Your task to perform on an android device: turn on javascript in the chrome app Image 0: 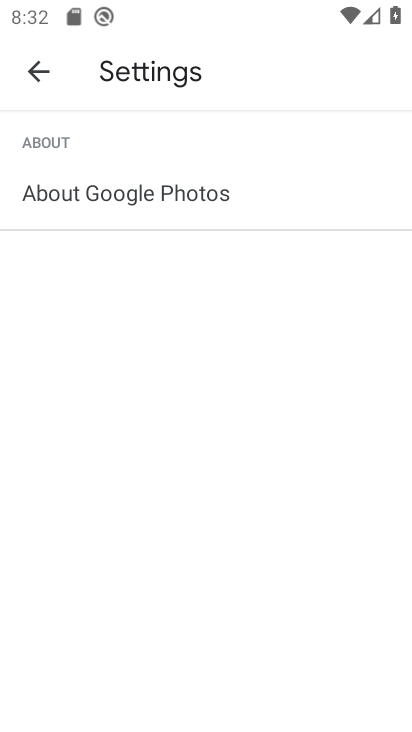
Step 0: press home button
Your task to perform on an android device: turn on javascript in the chrome app Image 1: 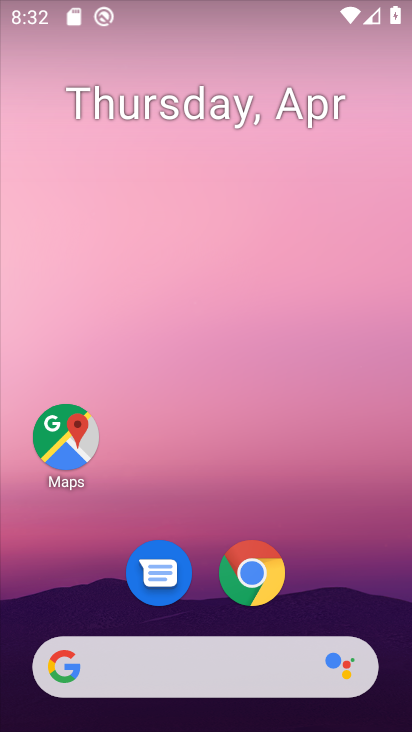
Step 1: click (251, 572)
Your task to perform on an android device: turn on javascript in the chrome app Image 2: 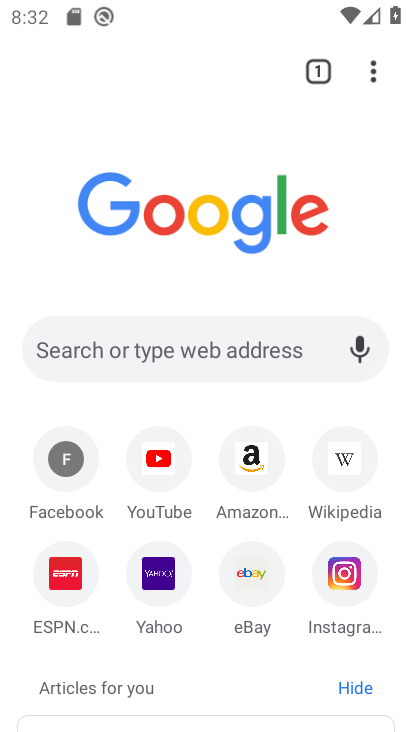
Step 2: click (375, 68)
Your task to perform on an android device: turn on javascript in the chrome app Image 3: 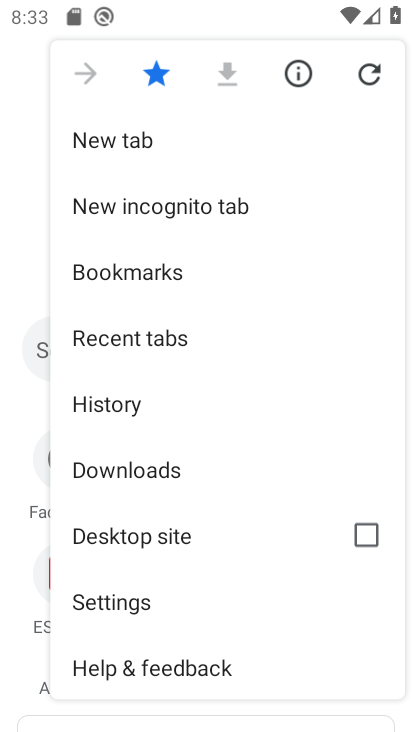
Step 3: click (113, 601)
Your task to perform on an android device: turn on javascript in the chrome app Image 4: 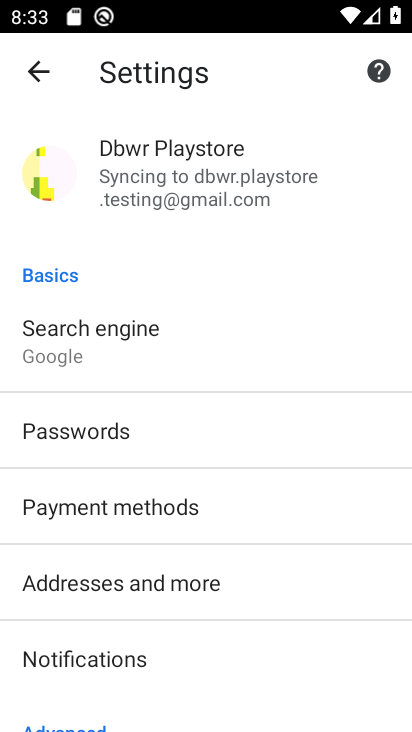
Step 4: drag from (205, 641) to (308, 460)
Your task to perform on an android device: turn on javascript in the chrome app Image 5: 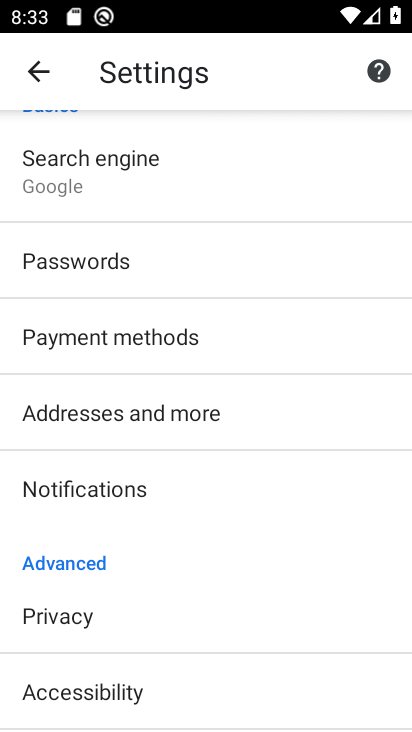
Step 5: drag from (187, 578) to (280, 459)
Your task to perform on an android device: turn on javascript in the chrome app Image 6: 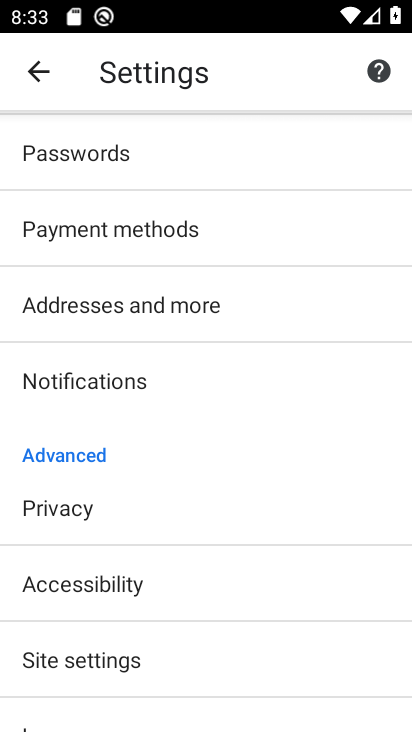
Step 6: drag from (191, 592) to (264, 501)
Your task to perform on an android device: turn on javascript in the chrome app Image 7: 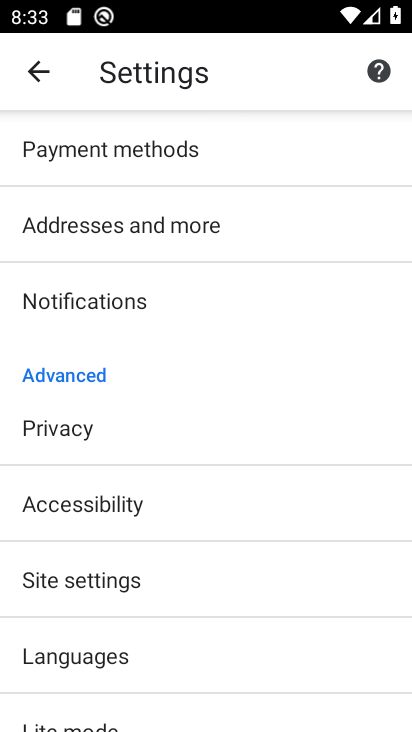
Step 7: click (81, 579)
Your task to perform on an android device: turn on javascript in the chrome app Image 8: 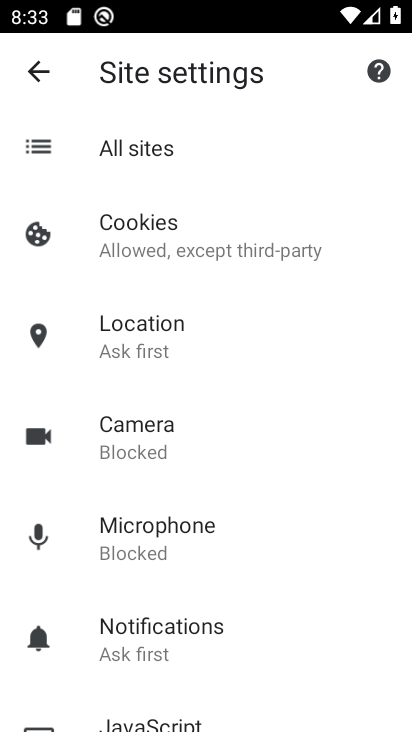
Step 8: drag from (239, 577) to (311, 470)
Your task to perform on an android device: turn on javascript in the chrome app Image 9: 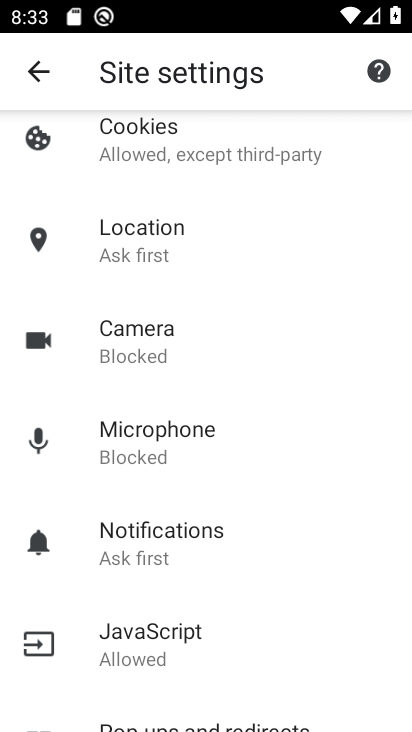
Step 9: click (163, 634)
Your task to perform on an android device: turn on javascript in the chrome app Image 10: 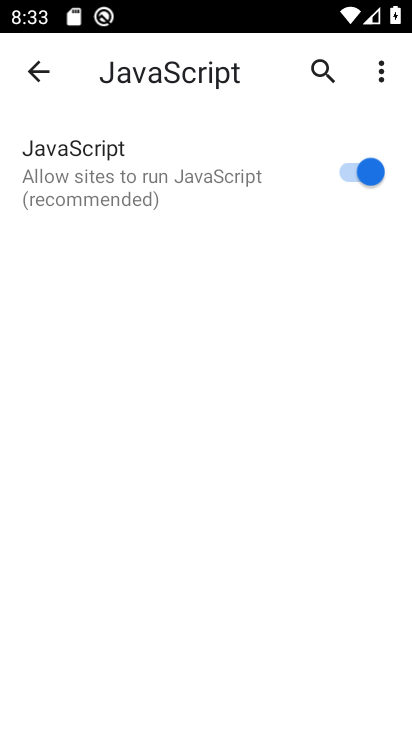
Step 10: task complete